Your task to perform on an android device: Go to Yahoo.com Image 0: 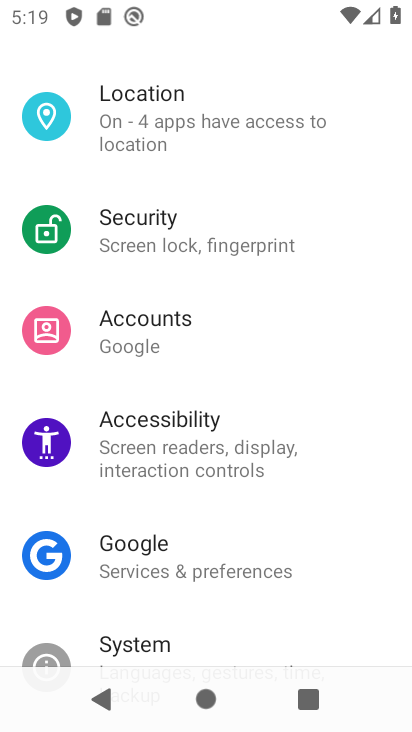
Step 0: press home button
Your task to perform on an android device: Go to Yahoo.com Image 1: 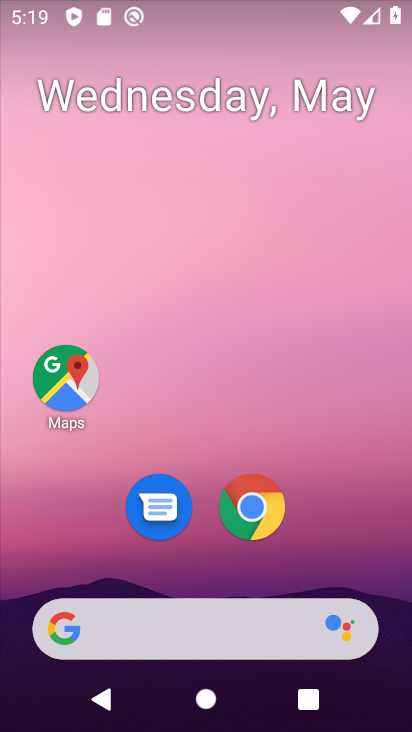
Step 1: click (254, 506)
Your task to perform on an android device: Go to Yahoo.com Image 2: 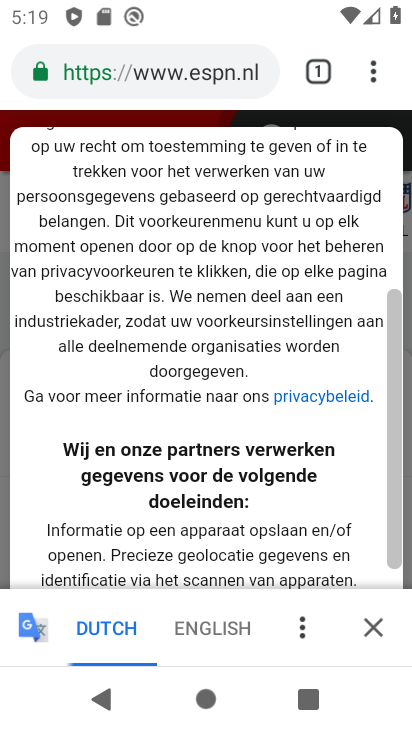
Step 2: click (261, 76)
Your task to perform on an android device: Go to Yahoo.com Image 3: 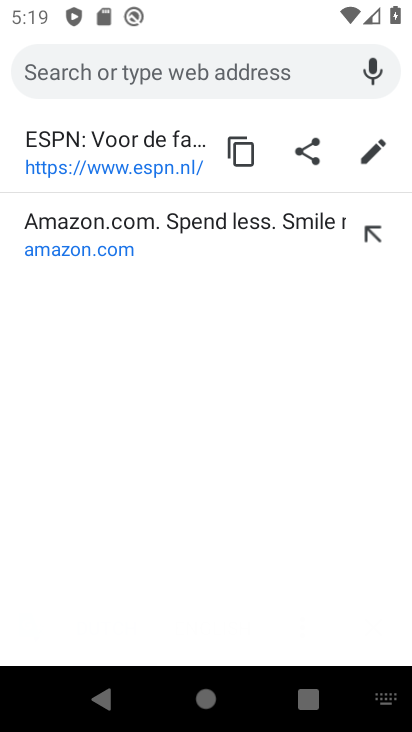
Step 3: click (244, 68)
Your task to perform on an android device: Go to Yahoo.com Image 4: 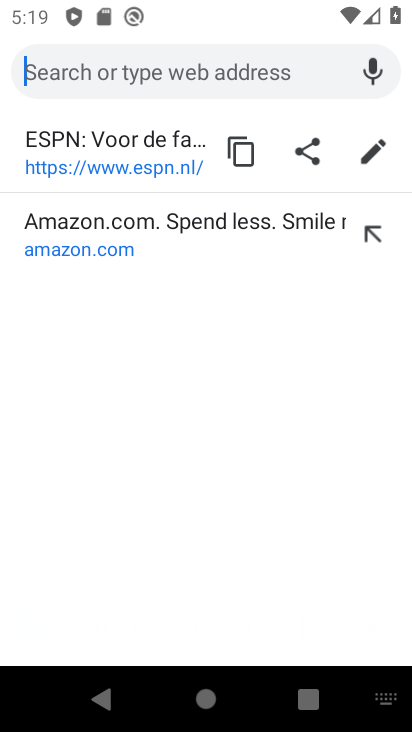
Step 4: type "Yahoo.com"
Your task to perform on an android device: Go to Yahoo.com Image 5: 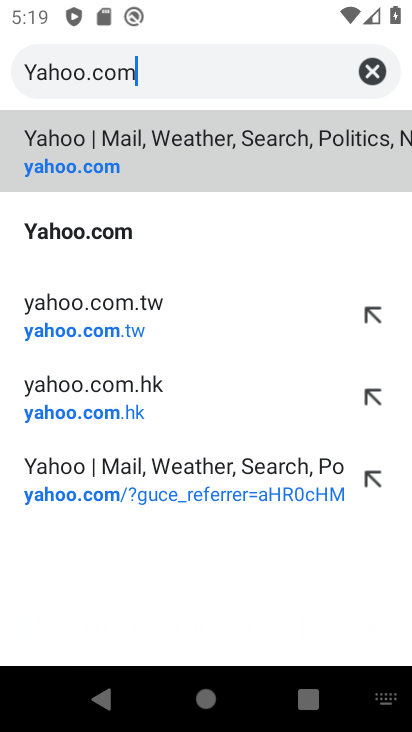
Step 5: click (118, 175)
Your task to perform on an android device: Go to Yahoo.com Image 6: 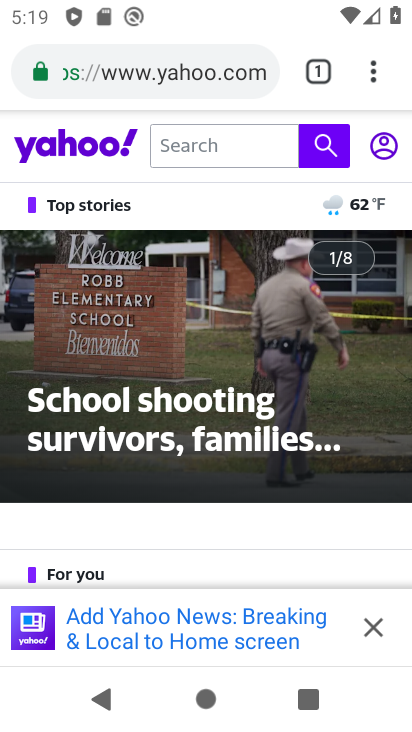
Step 6: task complete